Your task to perform on an android device: allow notifications from all sites in the chrome app Image 0: 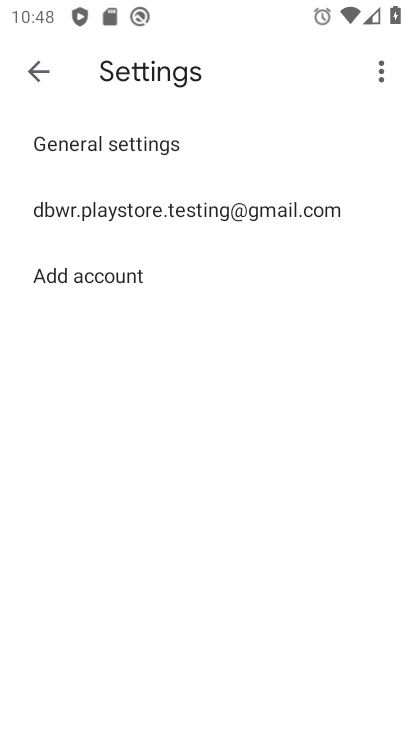
Step 0: press home button
Your task to perform on an android device: allow notifications from all sites in the chrome app Image 1: 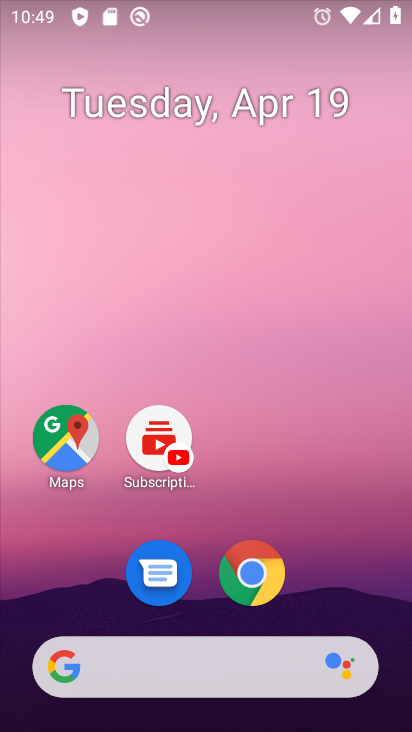
Step 1: click (254, 568)
Your task to perform on an android device: allow notifications from all sites in the chrome app Image 2: 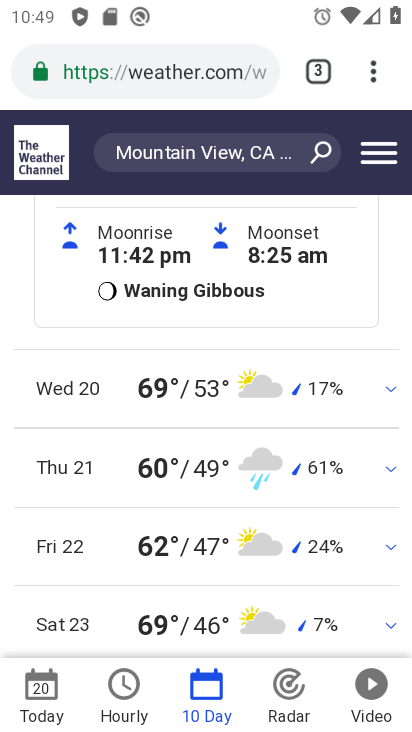
Step 2: drag from (373, 71) to (164, 567)
Your task to perform on an android device: allow notifications from all sites in the chrome app Image 3: 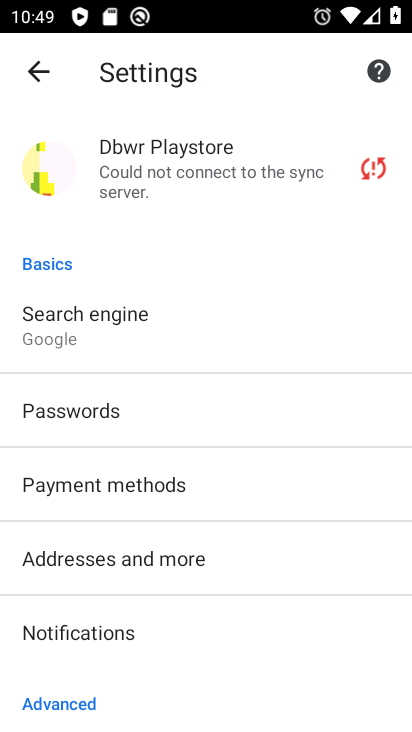
Step 3: click (90, 631)
Your task to perform on an android device: allow notifications from all sites in the chrome app Image 4: 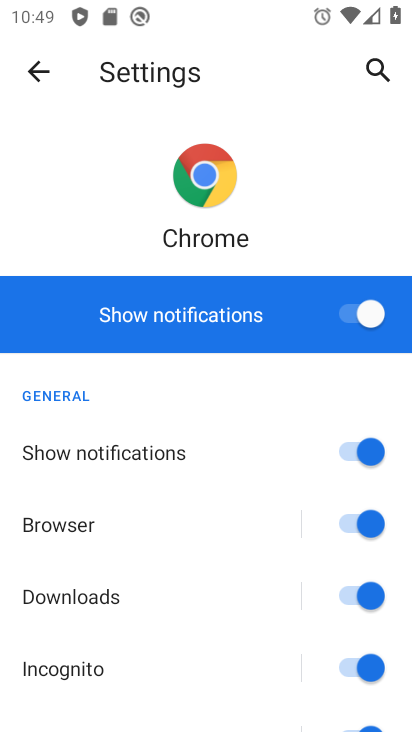
Step 4: task complete